Your task to perform on an android device: turn pop-ups off in chrome Image 0: 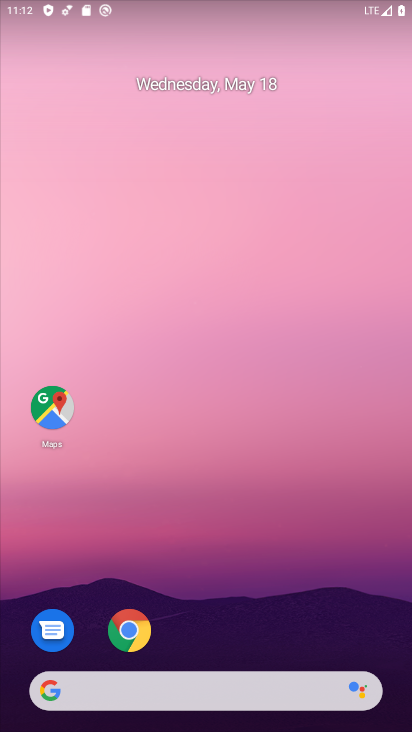
Step 0: click (134, 633)
Your task to perform on an android device: turn pop-ups off in chrome Image 1: 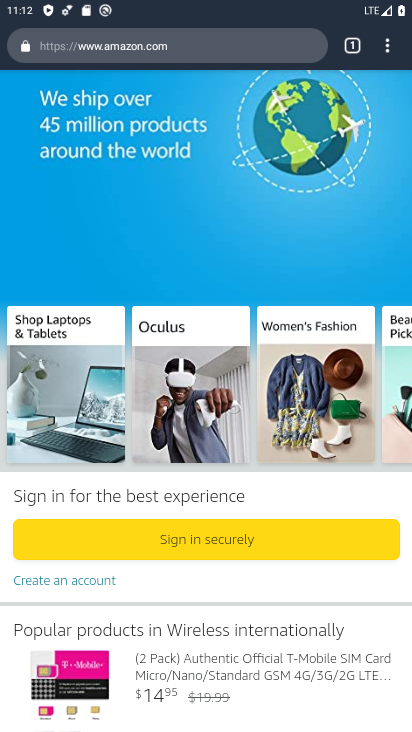
Step 1: click (384, 51)
Your task to perform on an android device: turn pop-ups off in chrome Image 2: 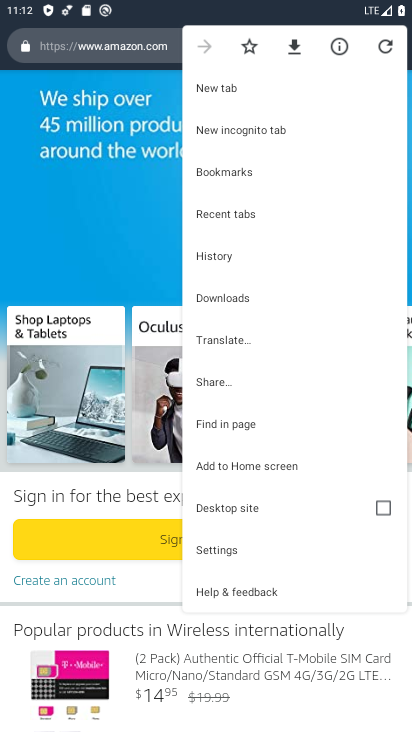
Step 2: click (235, 555)
Your task to perform on an android device: turn pop-ups off in chrome Image 3: 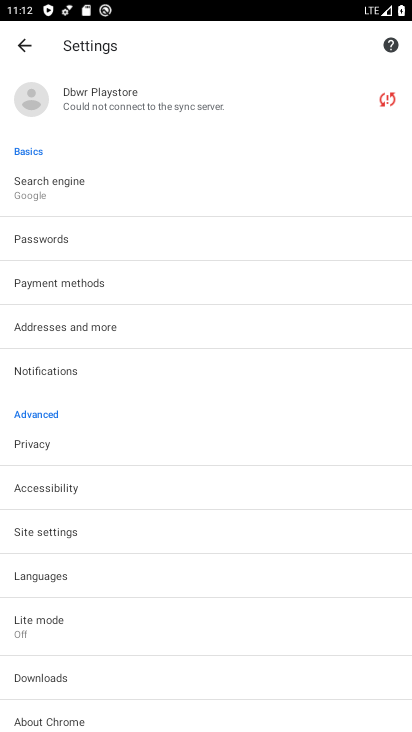
Step 3: click (61, 535)
Your task to perform on an android device: turn pop-ups off in chrome Image 4: 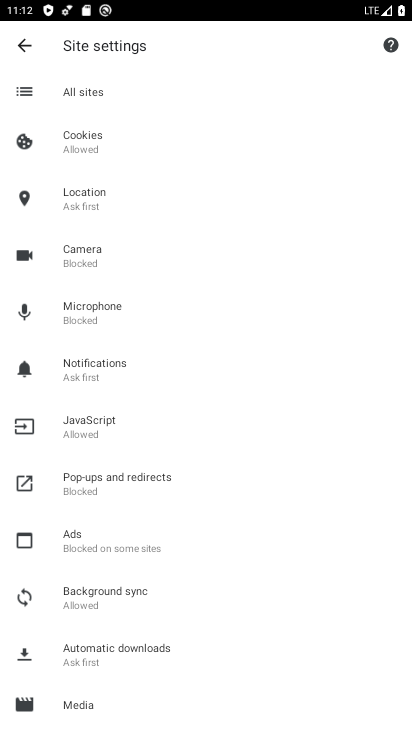
Step 4: click (147, 491)
Your task to perform on an android device: turn pop-ups off in chrome Image 5: 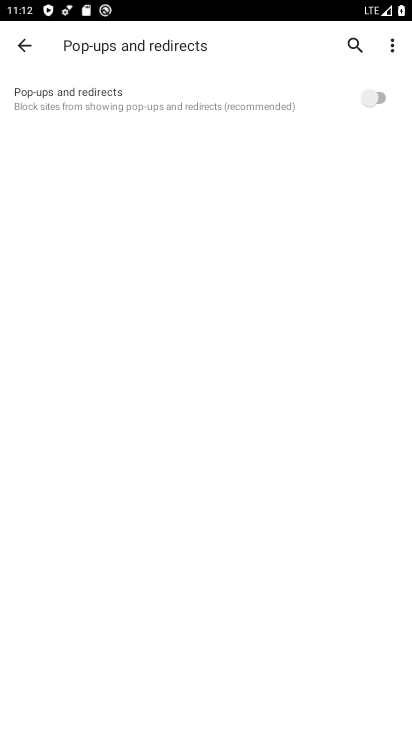
Step 5: task complete